Your task to perform on an android device: toggle improve location accuracy Image 0: 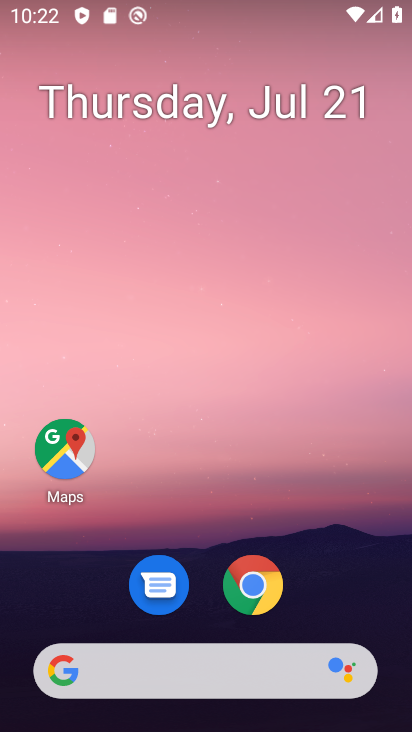
Step 0: drag from (164, 658) to (291, 247)
Your task to perform on an android device: toggle improve location accuracy Image 1: 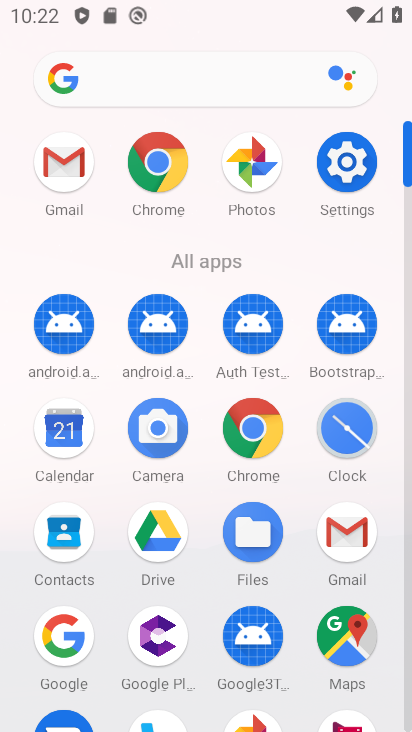
Step 1: click (336, 166)
Your task to perform on an android device: toggle improve location accuracy Image 2: 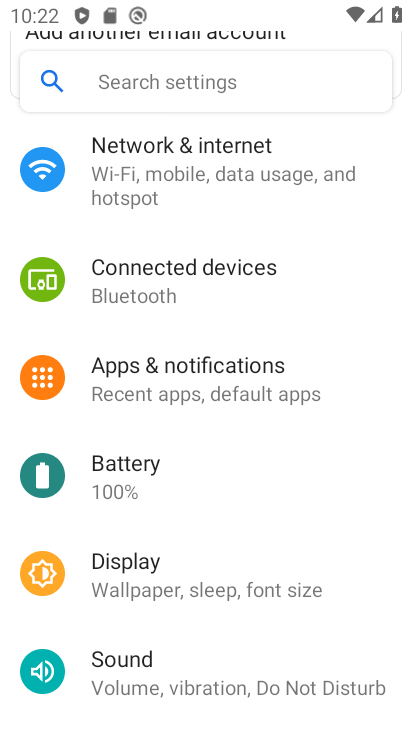
Step 2: drag from (220, 556) to (337, 129)
Your task to perform on an android device: toggle improve location accuracy Image 3: 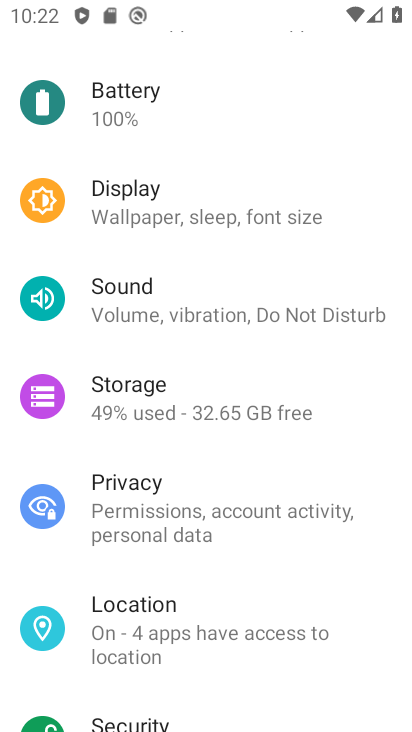
Step 3: click (156, 610)
Your task to perform on an android device: toggle improve location accuracy Image 4: 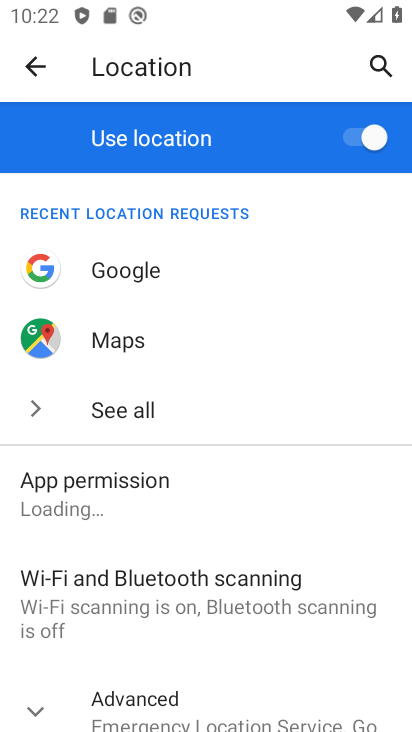
Step 4: drag from (153, 610) to (299, 88)
Your task to perform on an android device: toggle improve location accuracy Image 5: 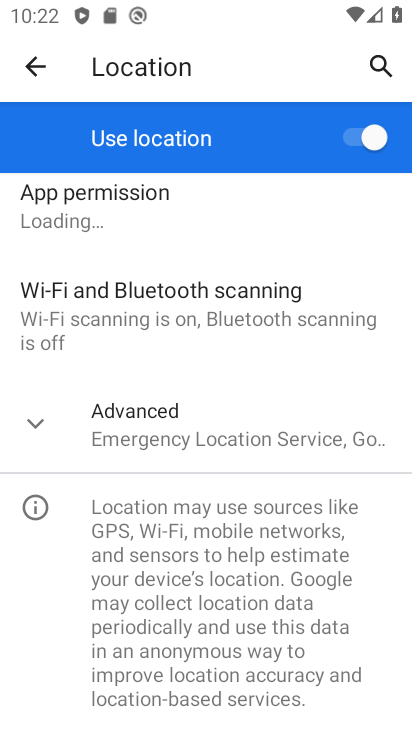
Step 5: click (171, 420)
Your task to perform on an android device: toggle improve location accuracy Image 6: 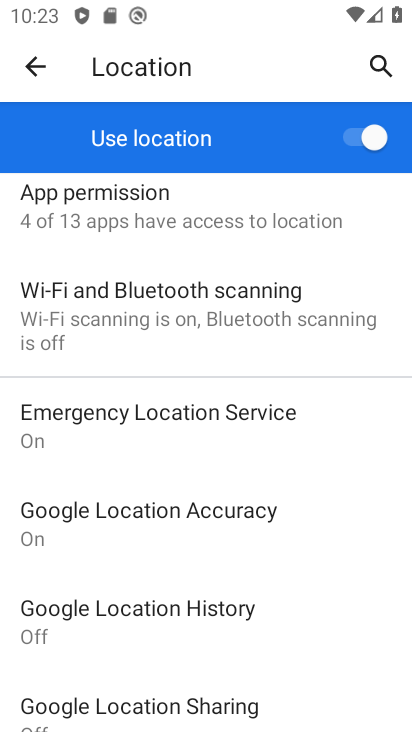
Step 6: click (148, 519)
Your task to perform on an android device: toggle improve location accuracy Image 7: 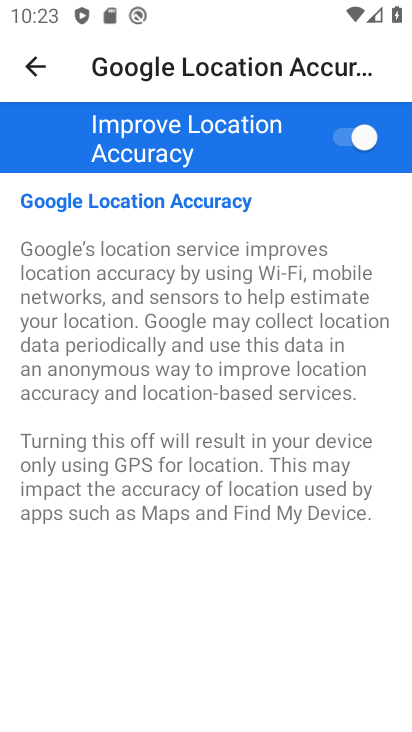
Step 7: click (353, 133)
Your task to perform on an android device: toggle improve location accuracy Image 8: 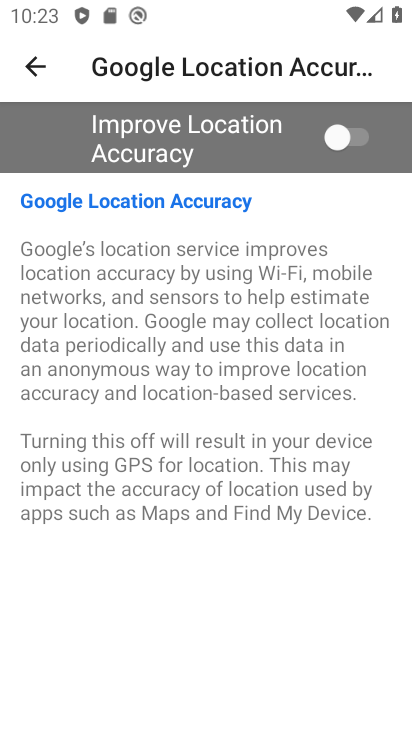
Step 8: task complete